Your task to perform on an android device: What's on my calendar tomorrow? Image 0: 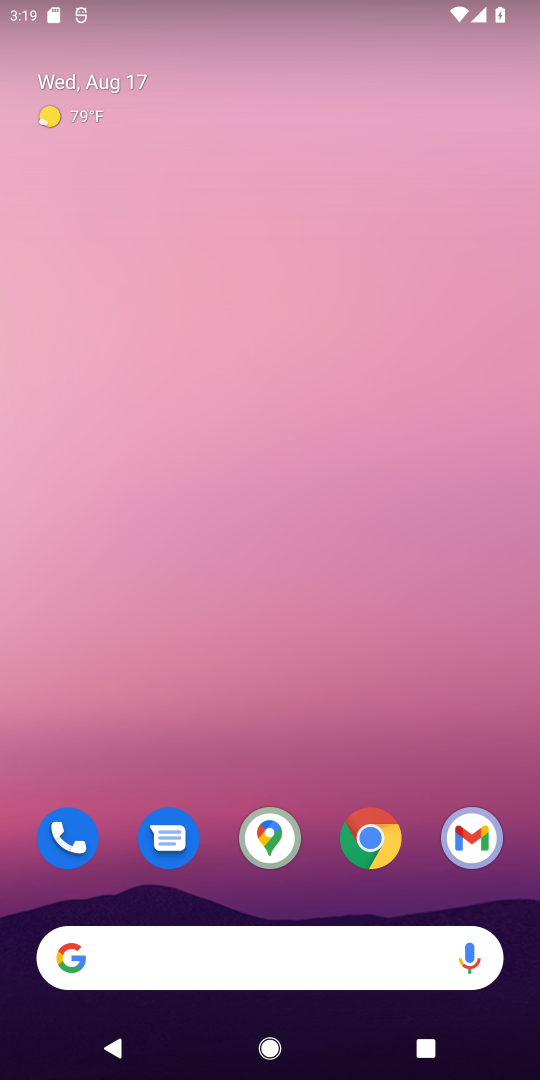
Step 0: drag from (263, 889) to (211, 444)
Your task to perform on an android device: What's on my calendar tomorrow? Image 1: 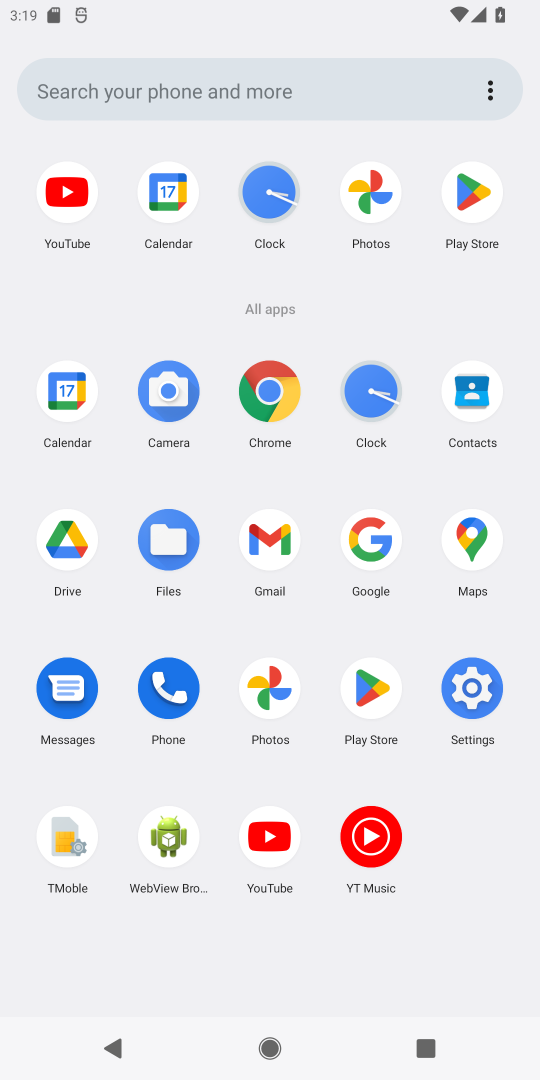
Step 1: click (63, 376)
Your task to perform on an android device: What's on my calendar tomorrow? Image 2: 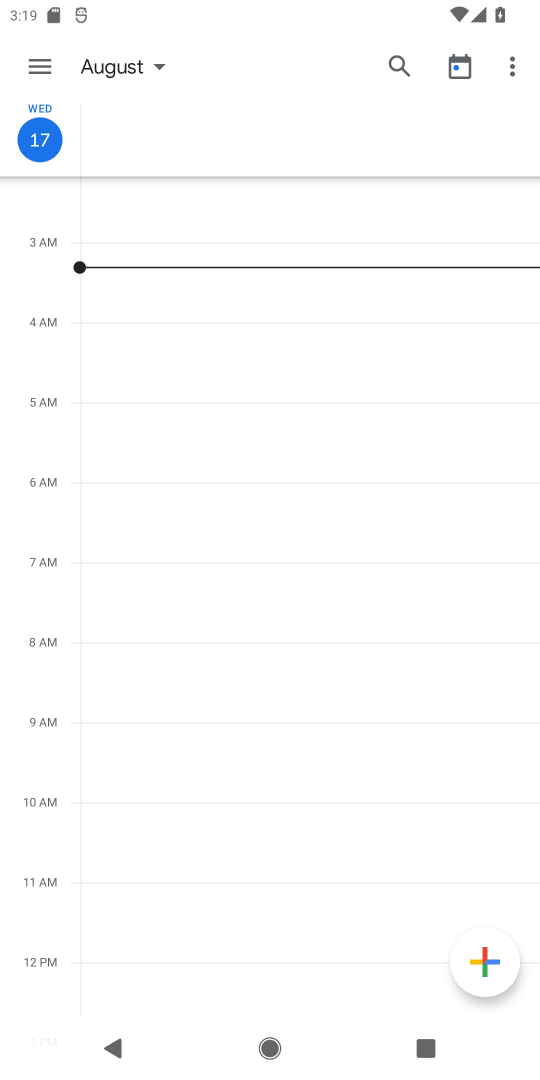
Step 2: click (118, 77)
Your task to perform on an android device: What's on my calendar tomorrow? Image 3: 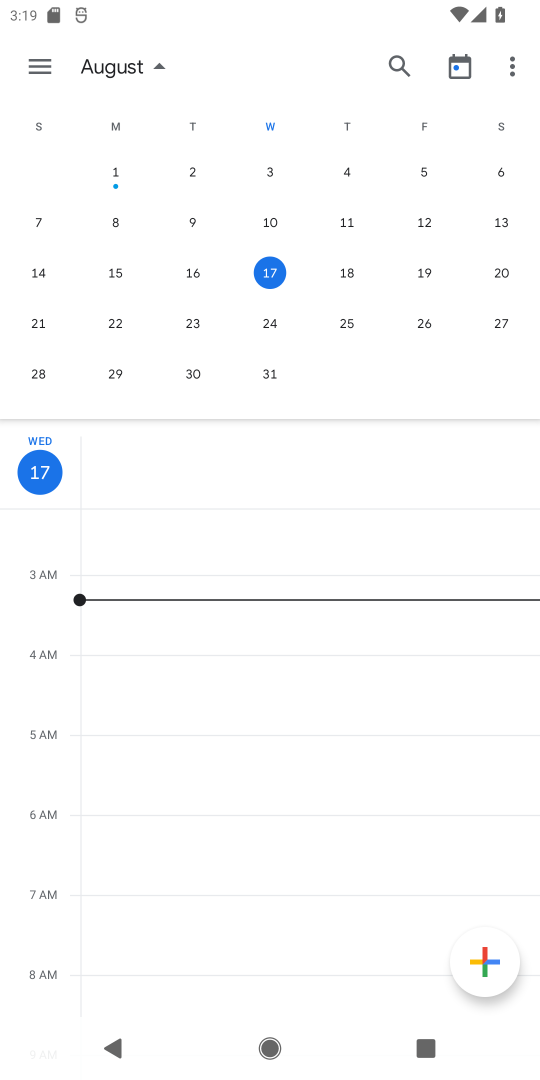
Step 3: click (340, 270)
Your task to perform on an android device: What's on my calendar tomorrow? Image 4: 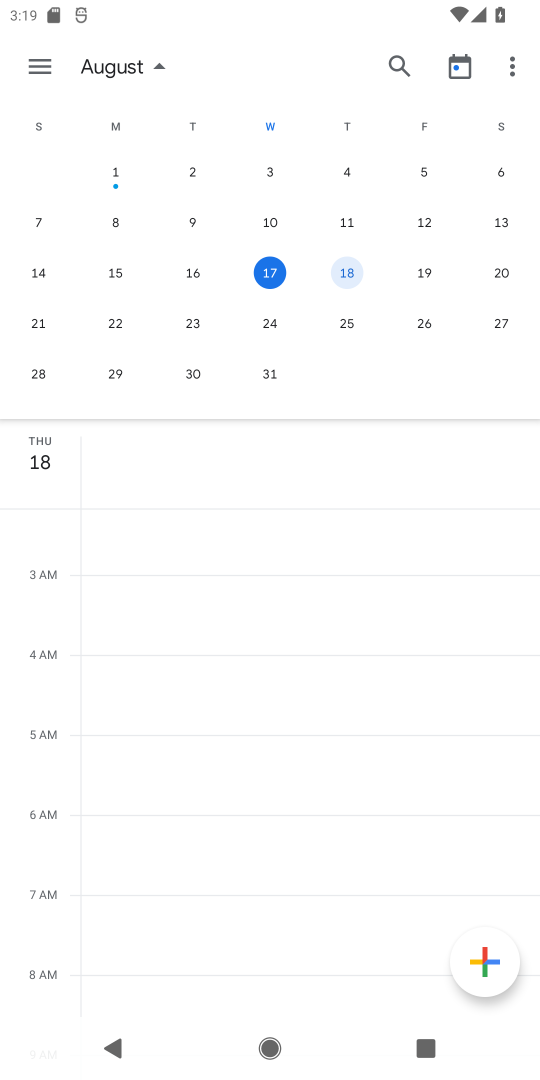
Step 4: click (41, 63)
Your task to perform on an android device: What's on my calendar tomorrow? Image 5: 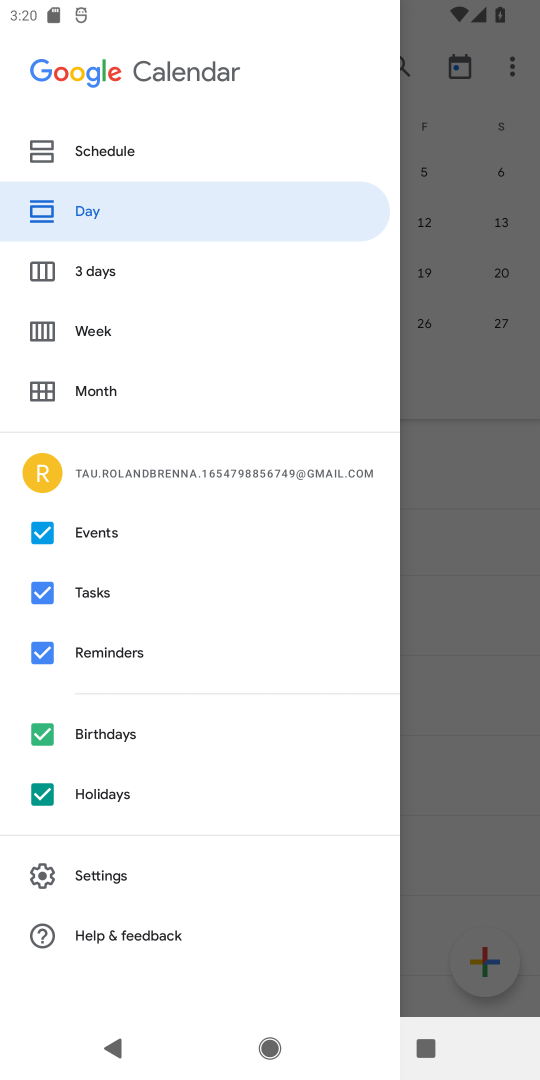
Step 5: click (89, 149)
Your task to perform on an android device: What's on my calendar tomorrow? Image 6: 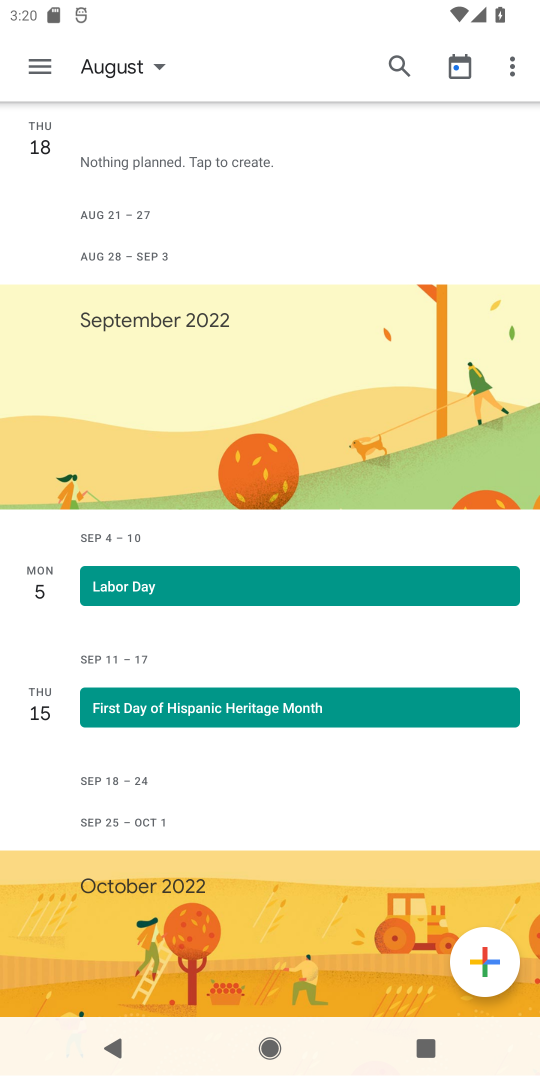
Step 6: task complete